Your task to perform on an android device: allow cookies in the chrome app Image 0: 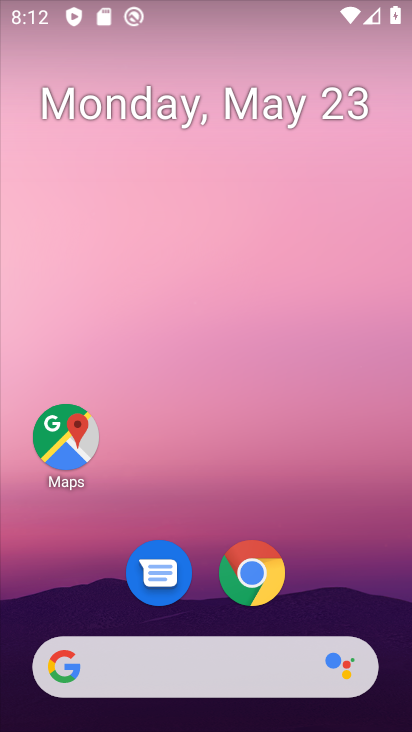
Step 0: press home button
Your task to perform on an android device: allow cookies in the chrome app Image 1: 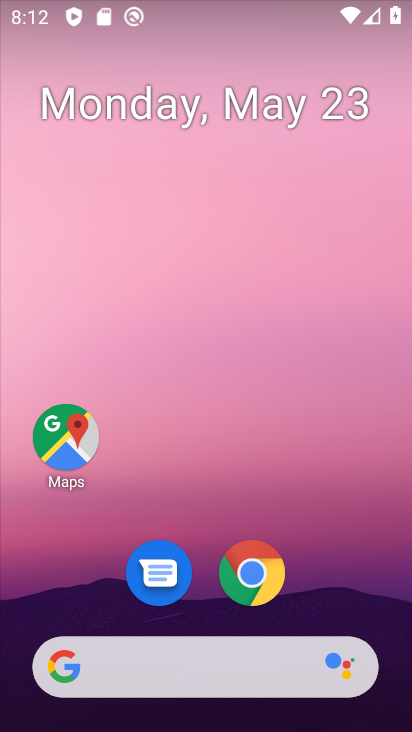
Step 1: click (239, 576)
Your task to perform on an android device: allow cookies in the chrome app Image 2: 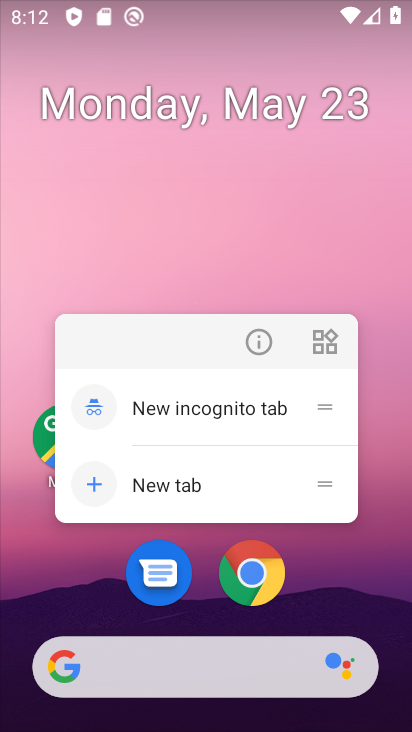
Step 2: click (250, 573)
Your task to perform on an android device: allow cookies in the chrome app Image 3: 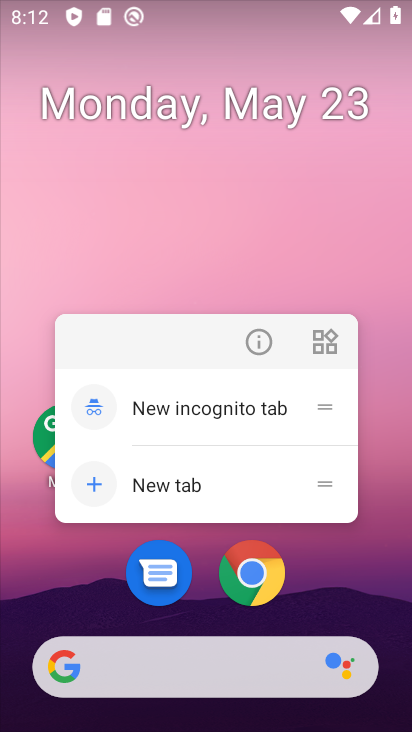
Step 3: drag from (337, 609) to (369, 98)
Your task to perform on an android device: allow cookies in the chrome app Image 4: 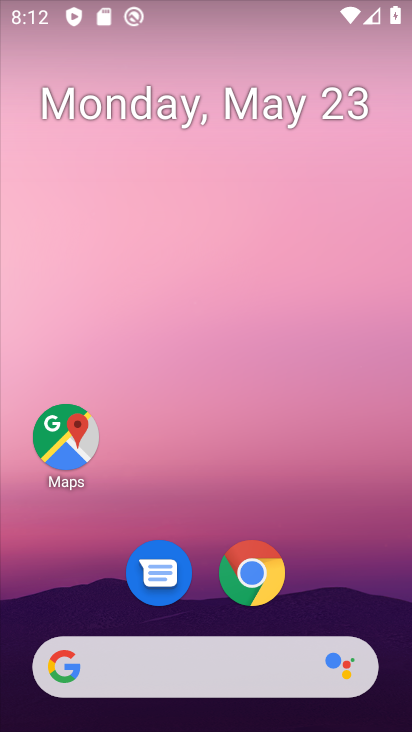
Step 4: drag from (290, 618) to (328, 96)
Your task to perform on an android device: allow cookies in the chrome app Image 5: 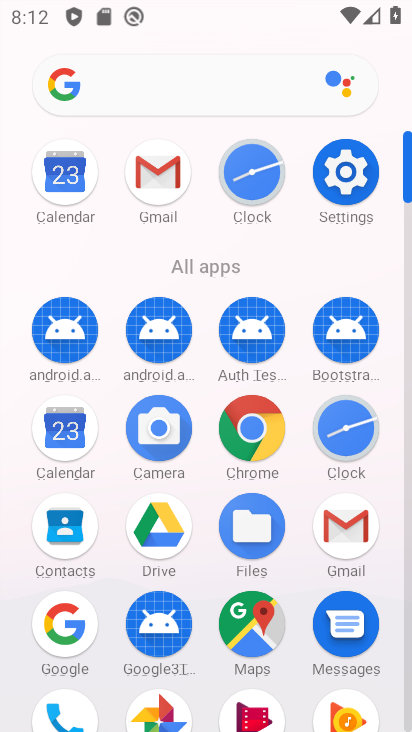
Step 5: click (240, 424)
Your task to perform on an android device: allow cookies in the chrome app Image 6: 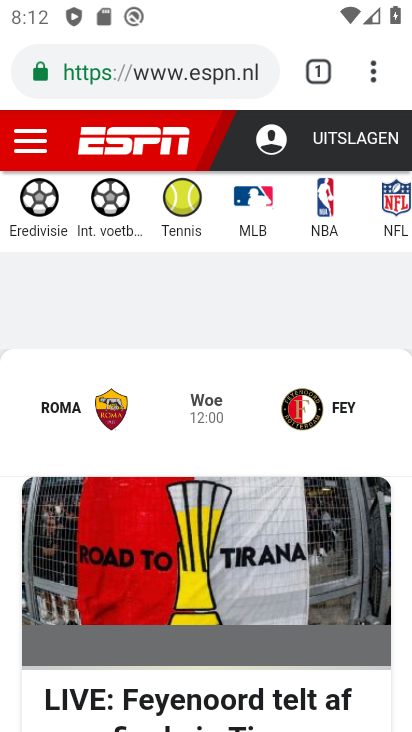
Step 6: click (376, 69)
Your task to perform on an android device: allow cookies in the chrome app Image 7: 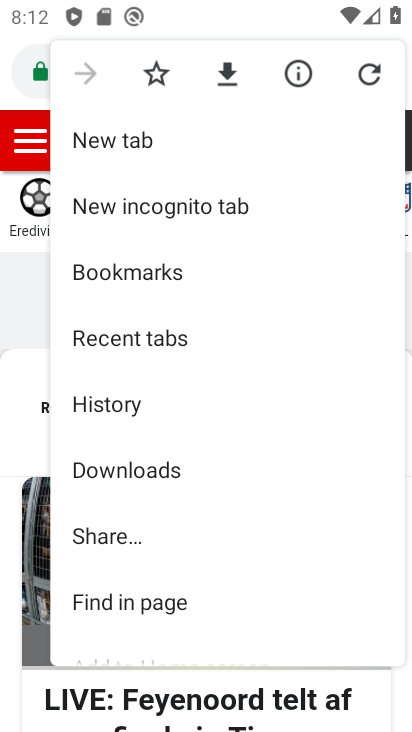
Step 7: drag from (215, 596) to (253, 146)
Your task to perform on an android device: allow cookies in the chrome app Image 8: 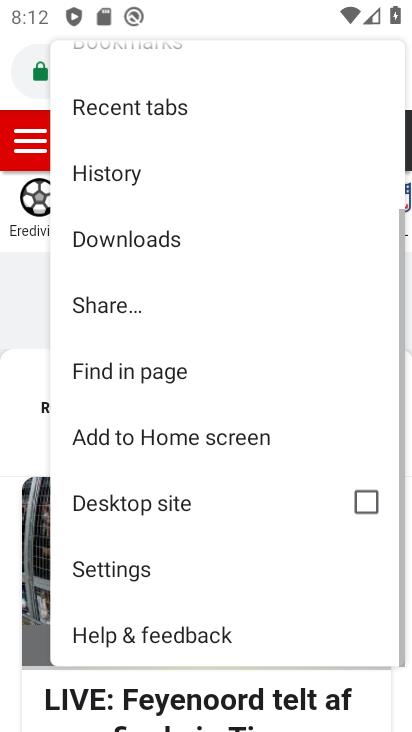
Step 8: click (136, 576)
Your task to perform on an android device: allow cookies in the chrome app Image 9: 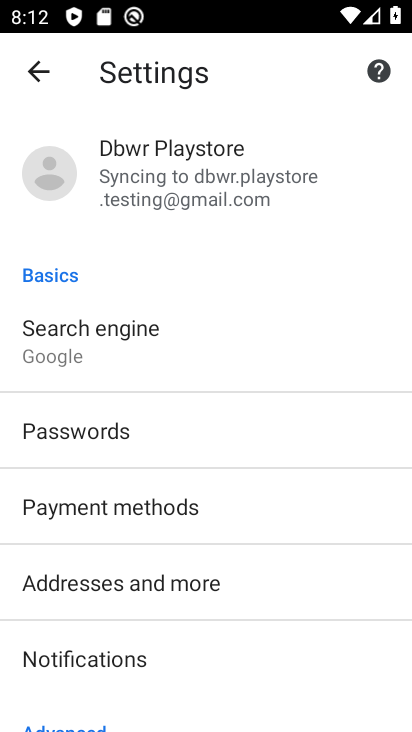
Step 9: drag from (155, 658) to (184, 214)
Your task to perform on an android device: allow cookies in the chrome app Image 10: 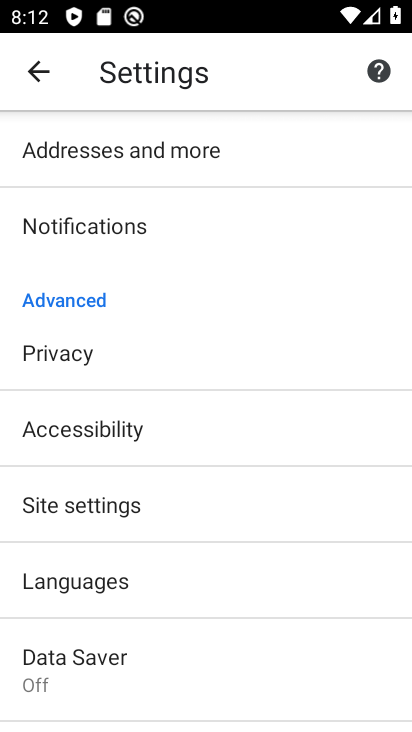
Step 10: click (144, 500)
Your task to perform on an android device: allow cookies in the chrome app Image 11: 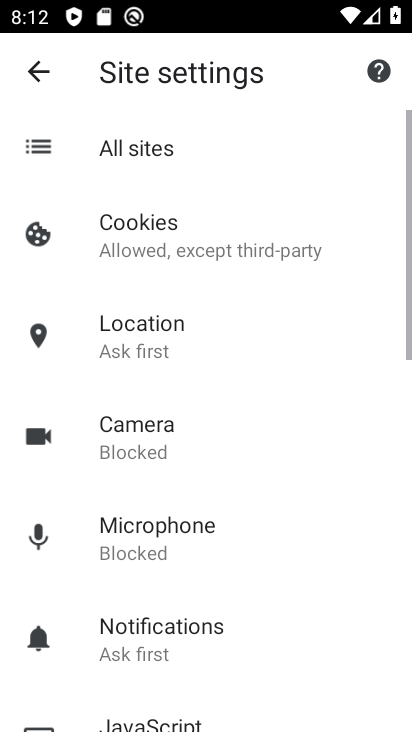
Step 11: click (141, 214)
Your task to perform on an android device: allow cookies in the chrome app Image 12: 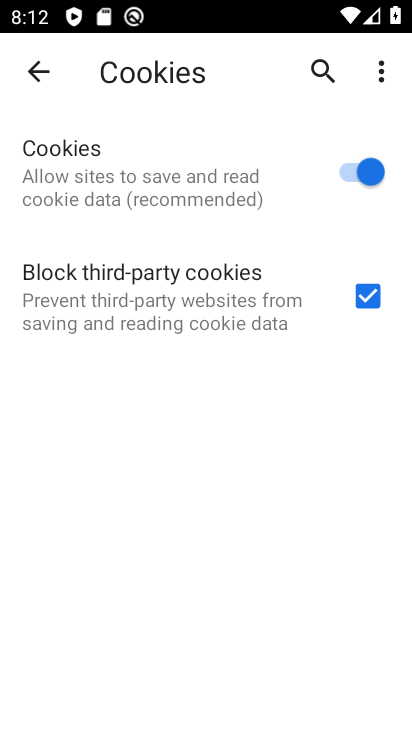
Step 12: task complete